Your task to perform on an android device: change alarm snooze length Image 0: 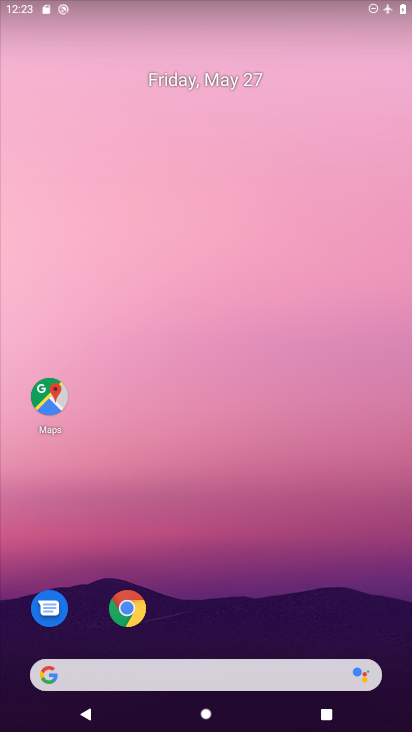
Step 0: press home button
Your task to perform on an android device: change alarm snooze length Image 1: 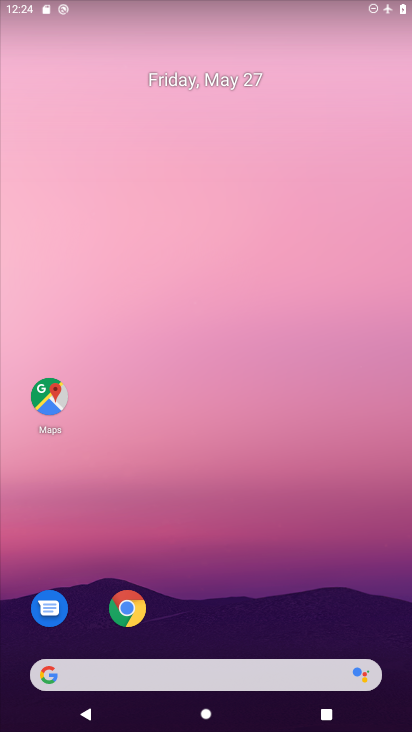
Step 1: drag from (163, 651) to (296, 75)
Your task to perform on an android device: change alarm snooze length Image 2: 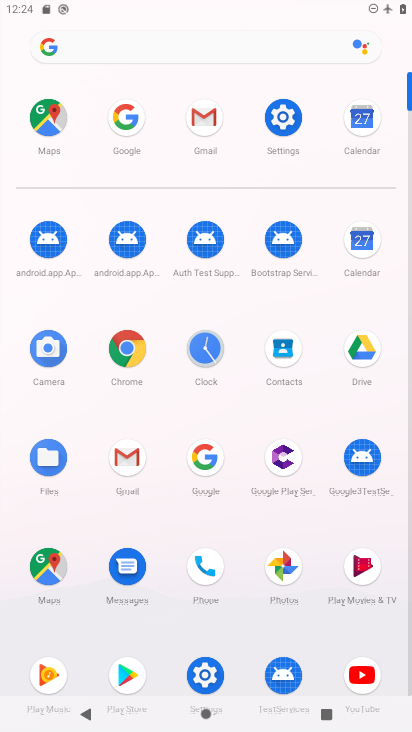
Step 2: click (206, 358)
Your task to perform on an android device: change alarm snooze length Image 3: 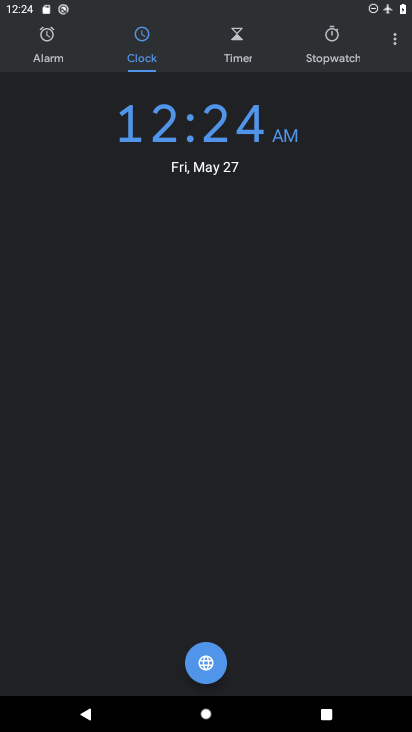
Step 3: click (396, 38)
Your task to perform on an android device: change alarm snooze length Image 4: 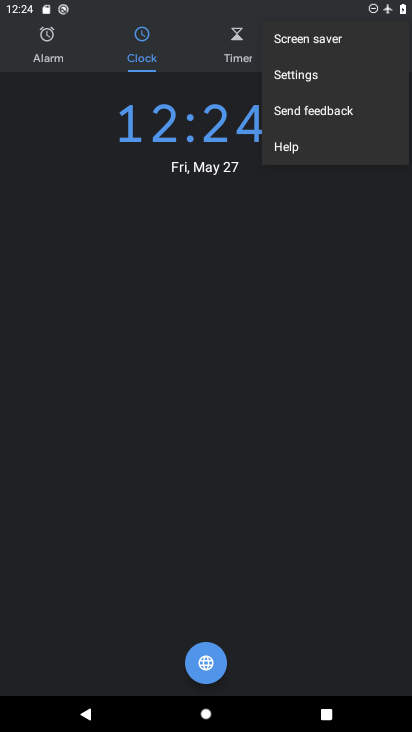
Step 4: click (306, 75)
Your task to perform on an android device: change alarm snooze length Image 5: 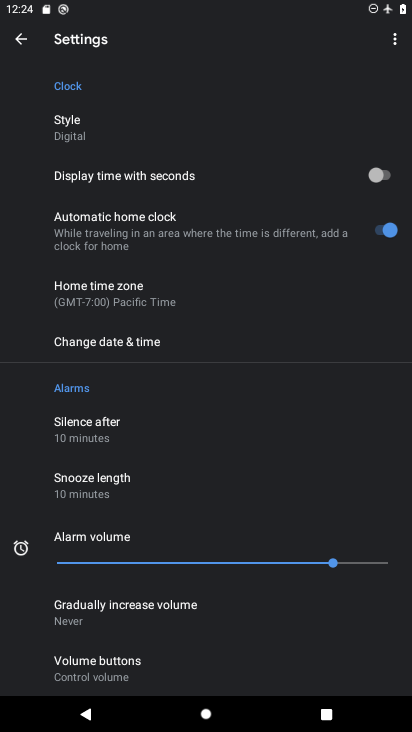
Step 5: drag from (240, 523) to (276, 399)
Your task to perform on an android device: change alarm snooze length Image 6: 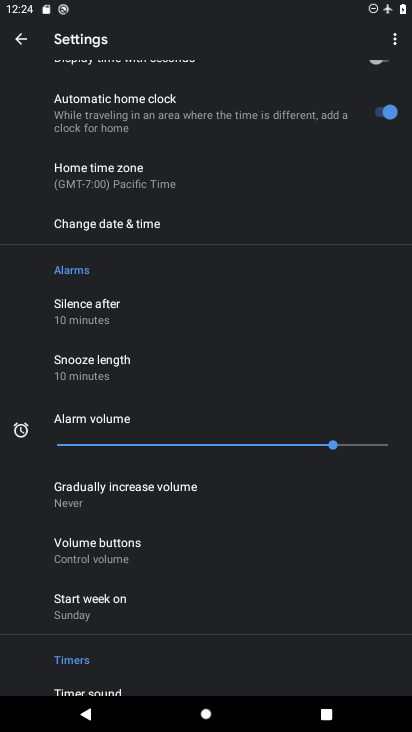
Step 6: click (107, 363)
Your task to perform on an android device: change alarm snooze length Image 7: 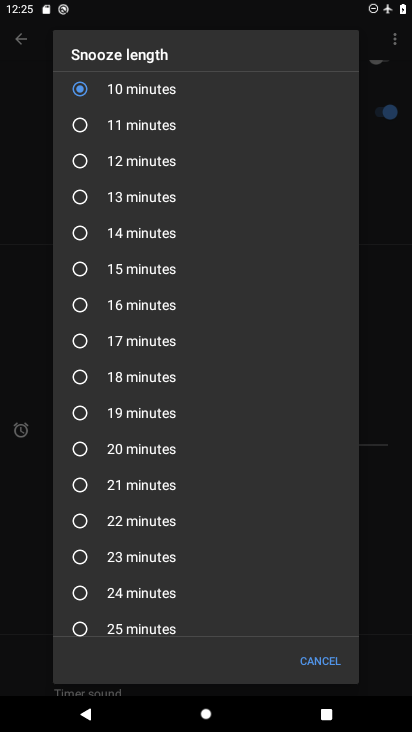
Step 7: click (75, 267)
Your task to perform on an android device: change alarm snooze length Image 8: 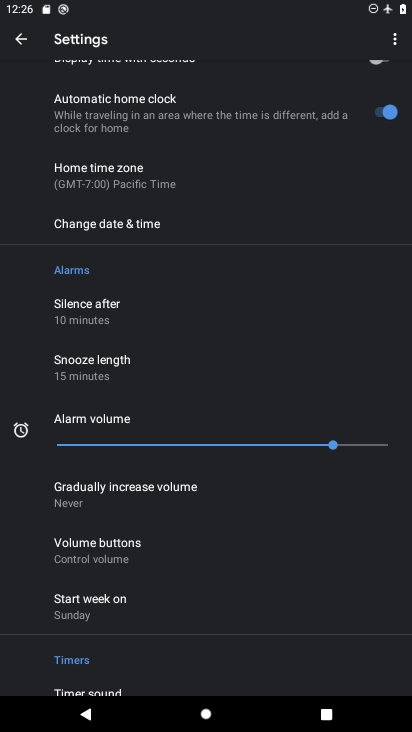
Step 8: task complete